Your task to perform on an android device: Go to calendar. Show me events next week Image 0: 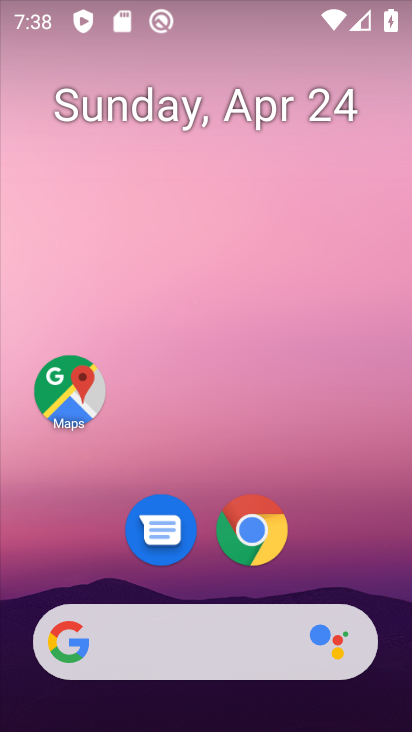
Step 0: click (176, 102)
Your task to perform on an android device: Go to calendar. Show me events next week Image 1: 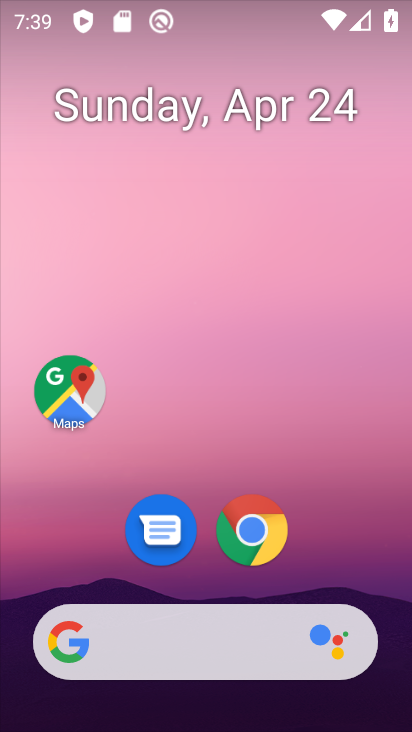
Step 1: click (171, 100)
Your task to perform on an android device: Go to calendar. Show me events next week Image 2: 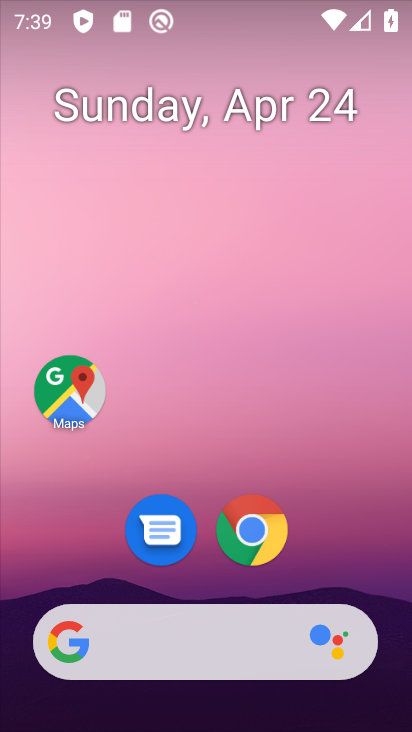
Step 2: click (145, 103)
Your task to perform on an android device: Go to calendar. Show me events next week Image 3: 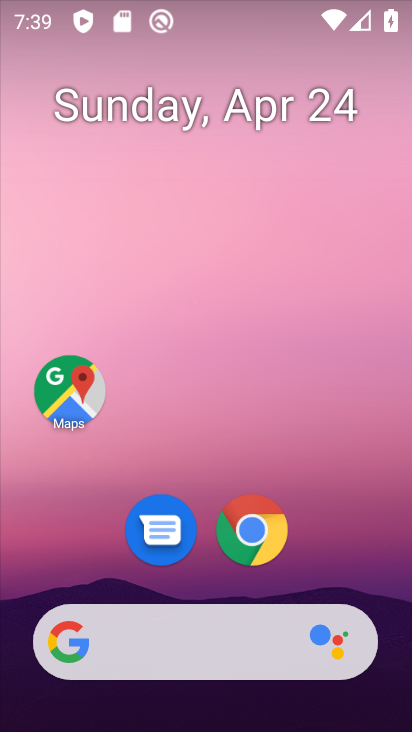
Step 3: click (142, 117)
Your task to perform on an android device: Go to calendar. Show me events next week Image 4: 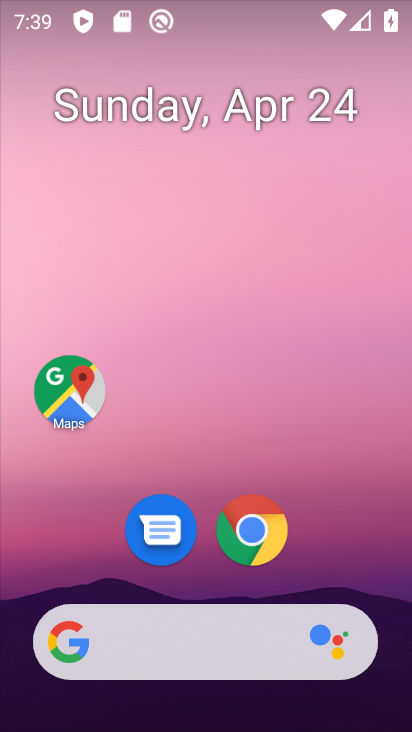
Step 4: click (173, 112)
Your task to perform on an android device: Go to calendar. Show me events next week Image 5: 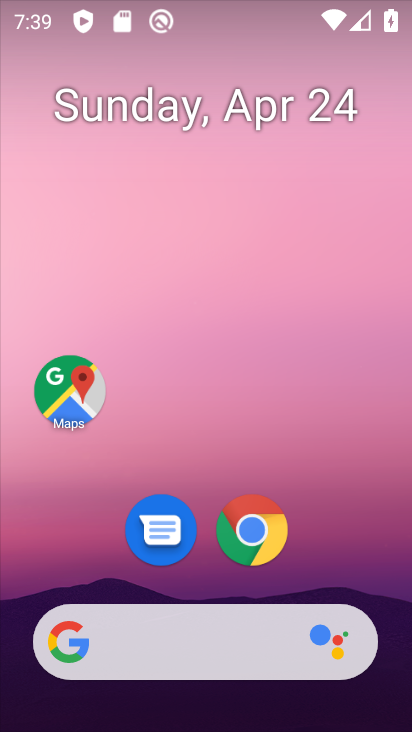
Step 5: click (217, 122)
Your task to perform on an android device: Go to calendar. Show me events next week Image 6: 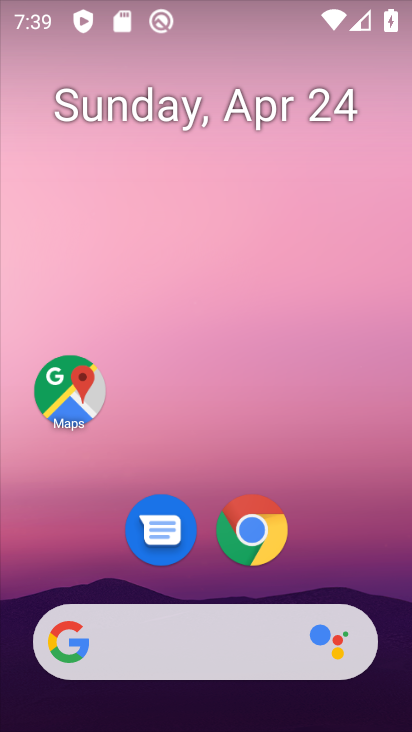
Step 6: drag from (212, 355) to (210, 150)
Your task to perform on an android device: Go to calendar. Show me events next week Image 7: 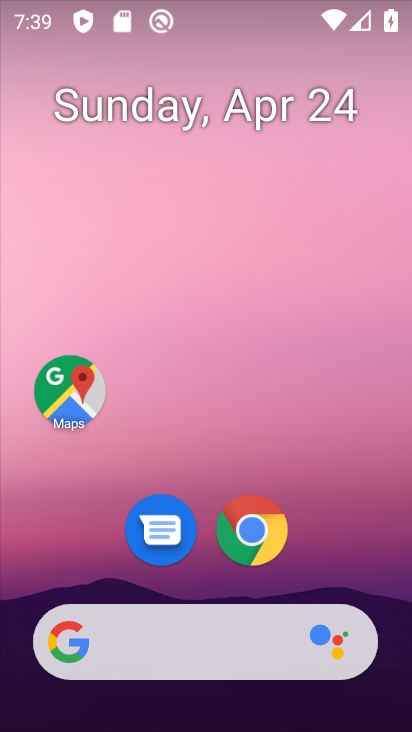
Step 7: drag from (202, 584) to (249, 409)
Your task to perform on an android device: Go to calendar. Show me events next week Image 8: 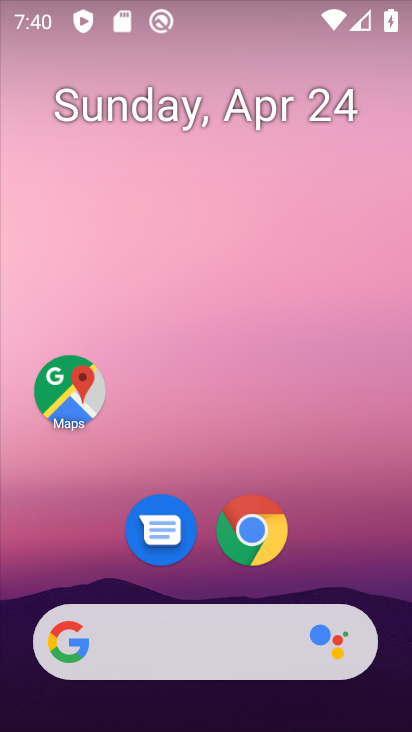
Step 8: drag from (211, 588) to (310, 18)
Your task to perform on an android device: Go to calendar. Show me events next week Image 9: 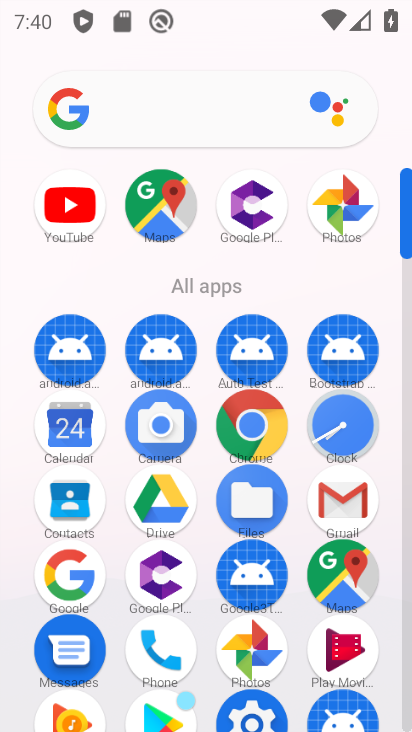
Step 9: click (68, 425)
Your task to perform on an android device: Go to calendar. Show me events next week Image 10: 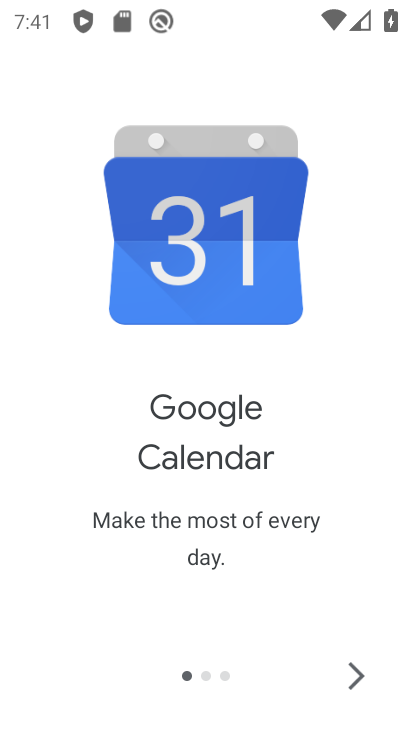
Step 10: click (365, 671)
Your task to perform on an android device: Go to calendar. Show me events next week Image 11: 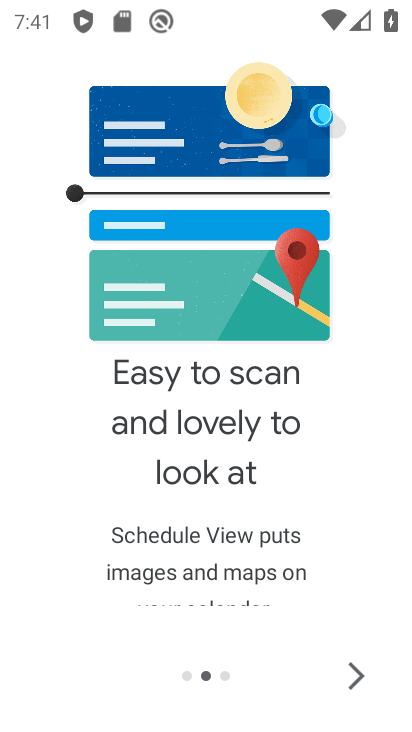
Step 11: click (365, 671)
Your task to perform on an android device: Go to calendar. Show me events next week Image 12: 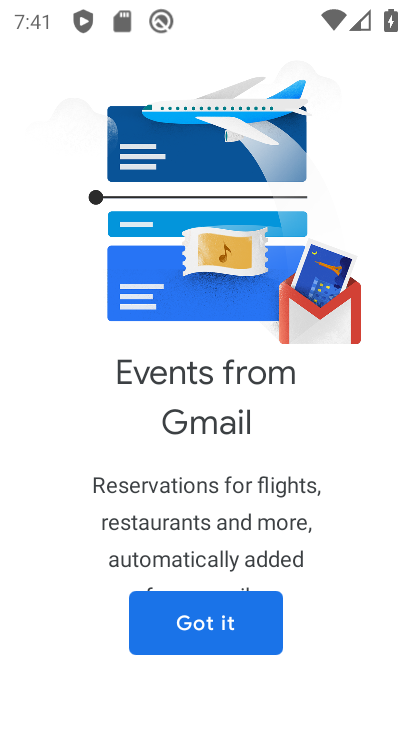
Step 12: click (197, 612)
Your task to perform on an android device: Go to calendar. Show me events next week Image 13: 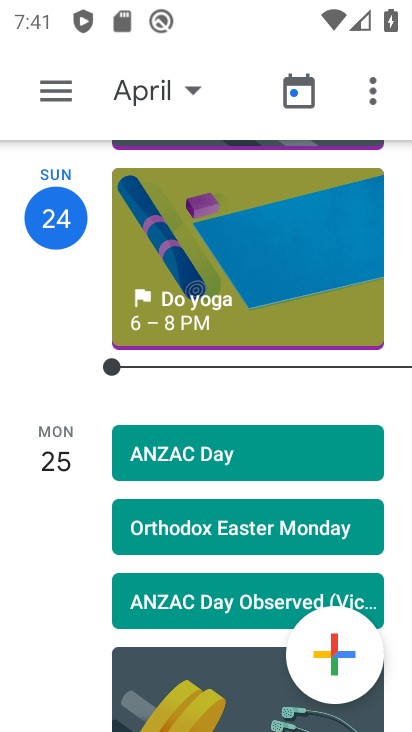
Step 13: click (189, 86)
Your task to perform on an android device: Go to calendar. Show me events next week Image 14: 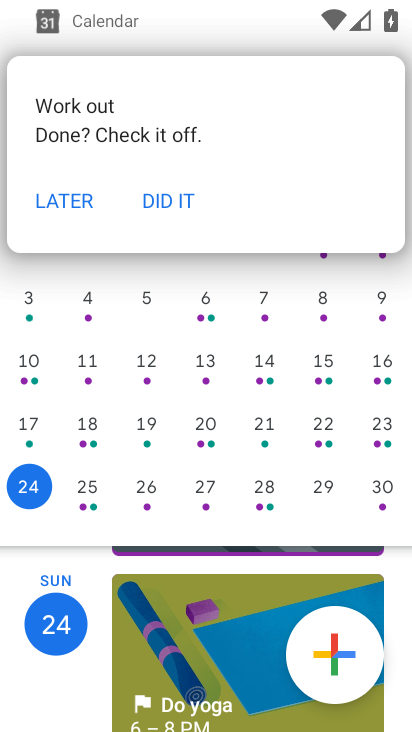
Step 14: click (88, 202)
Your task to perform on an android device: Go to calendar. Show me events next week Image 15: 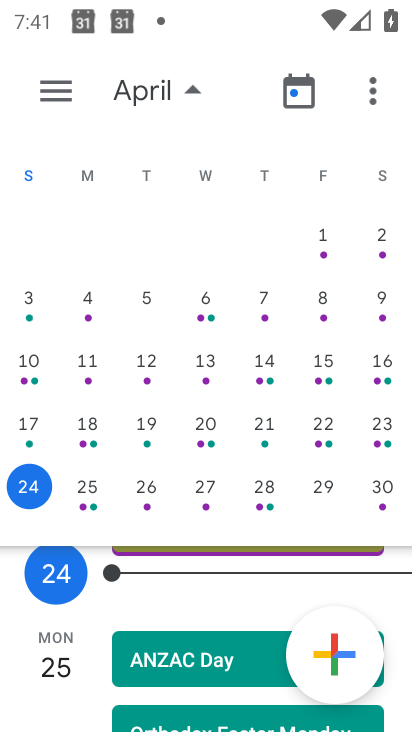
Step 15: drag from (389, 408) to (7, 443)
Your task to perform on an android device: Go to calendar. Show me events next week Image 16: 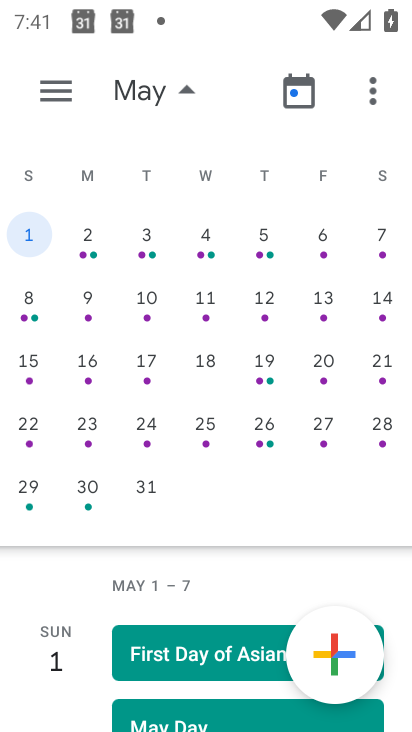
Step 16: click (150, 243)
Your task to perform on an android device: Go to calendar. Show me events next week Image 17: 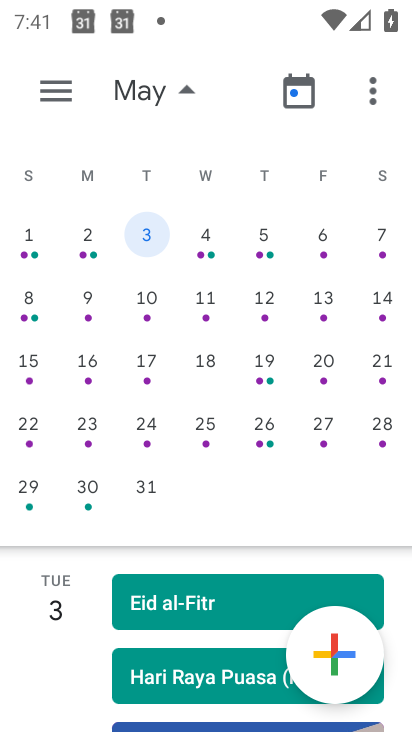
Step 17: task complete